Your task to perform on an android device: Open the stopwatch Image 0: 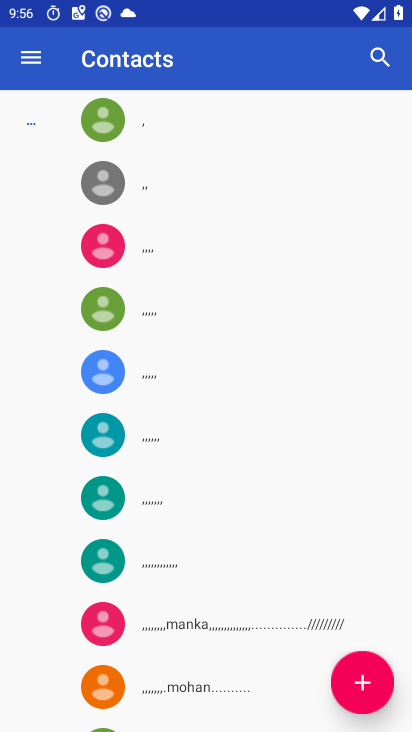
Step 0: drag from (326, 599) to (190, 42)
Your task to perform on an android device: Open the stopwatch Image 1: 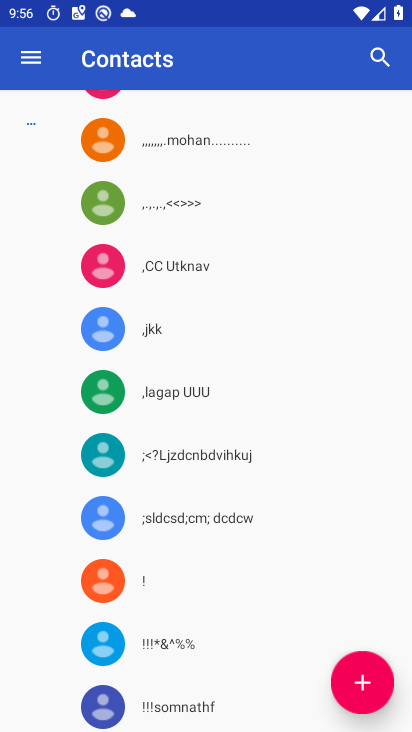
Step 1: press back button
Your task to perform on an android device: Open the stopwatch Image 2: 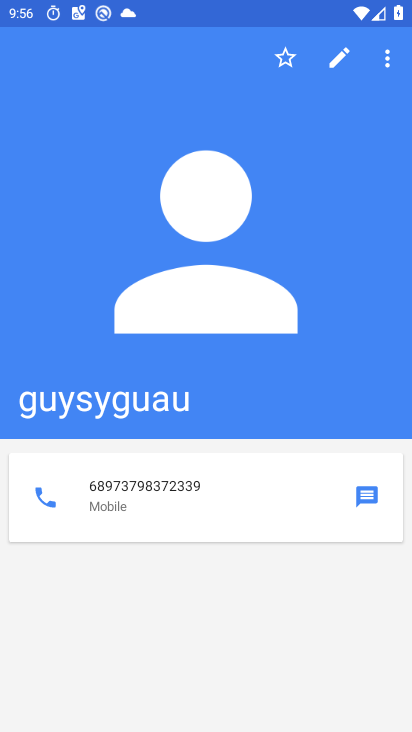
Step 2: press home button
Your task to perform on an android device: Open the stopwatch Image 3: 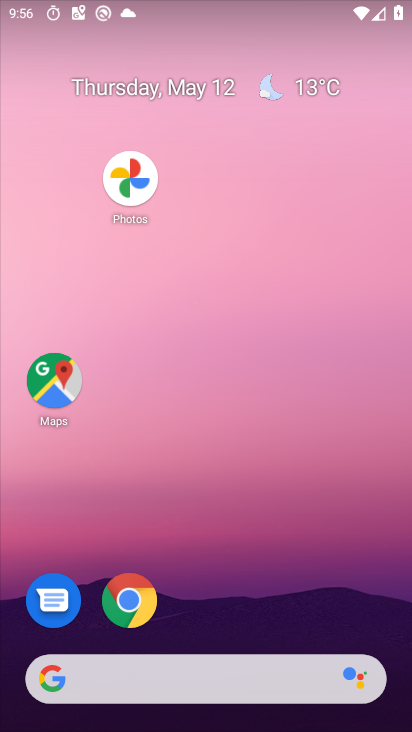
Step 3: drag from (293, 612) to (112, 30)
Your task to perform on an android device: Open the stopwatch Image 4: 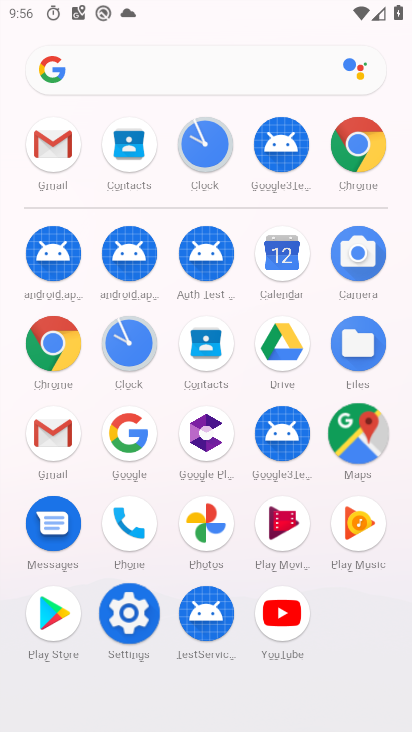
Step 4: click (128, 340)
Your task to perform on an android device: Open the stopwatch Image 5: 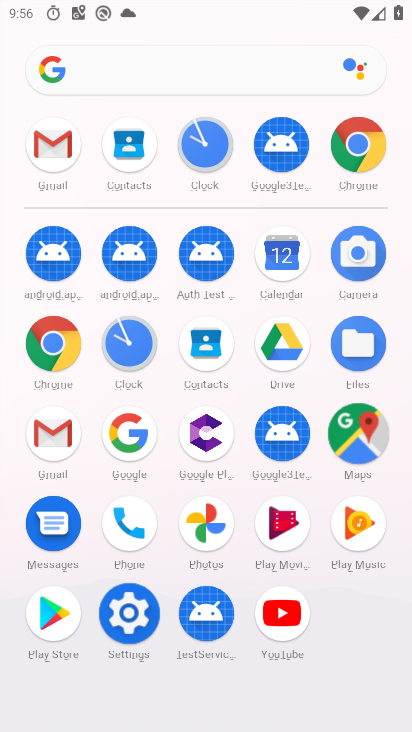
Step 5: click (128, 340)
Your task to perform on an android device: Open the stopwatch Image 6: 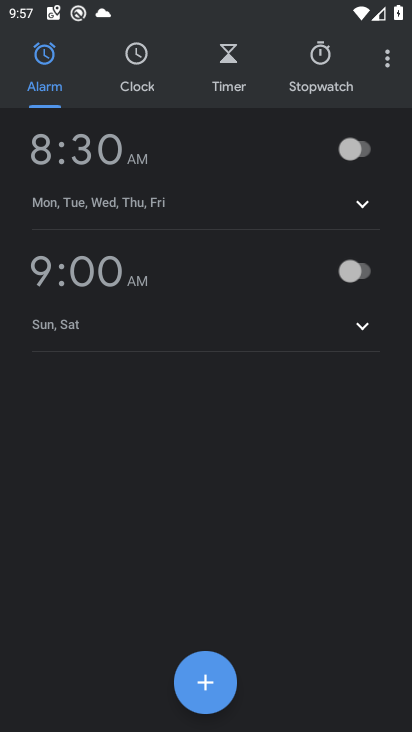
Step 6: click (316, 51)
Your task to perform on an android device: Open the stopwatch Image 7: 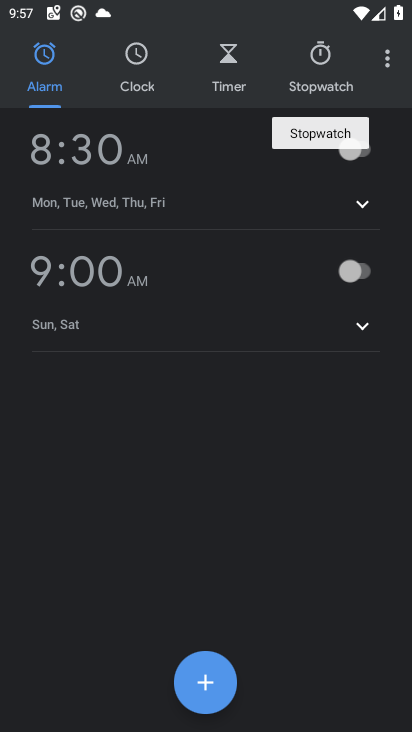
Step 7: drag from (328, 54) to (294, 74)
Your task to perform on an android device: Open the stopwatch Image 8: 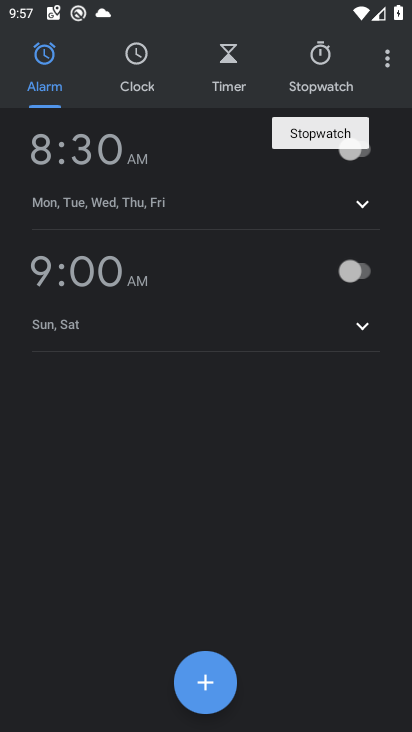
Step 8: click (315, 58)
Your task to perform on an android device: Open the stopwatch Image 9: 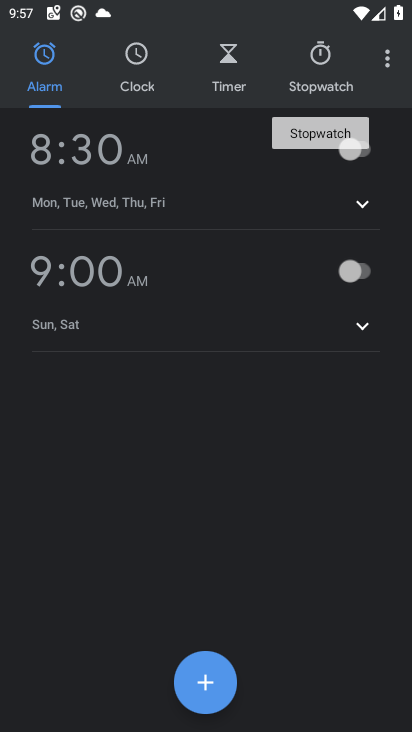
Step 9: click (324, 62)
Your task to perform on an android device: Open the stopwatch Image 10: 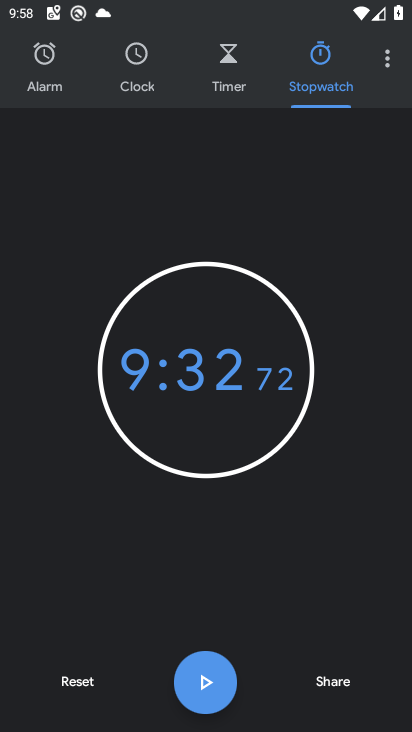
Step 10: task complete